Your task to perform on an android device: Show the shopping cart on walmart.com. Add "asus zenbook" to the cart on walmart.com Image 0: 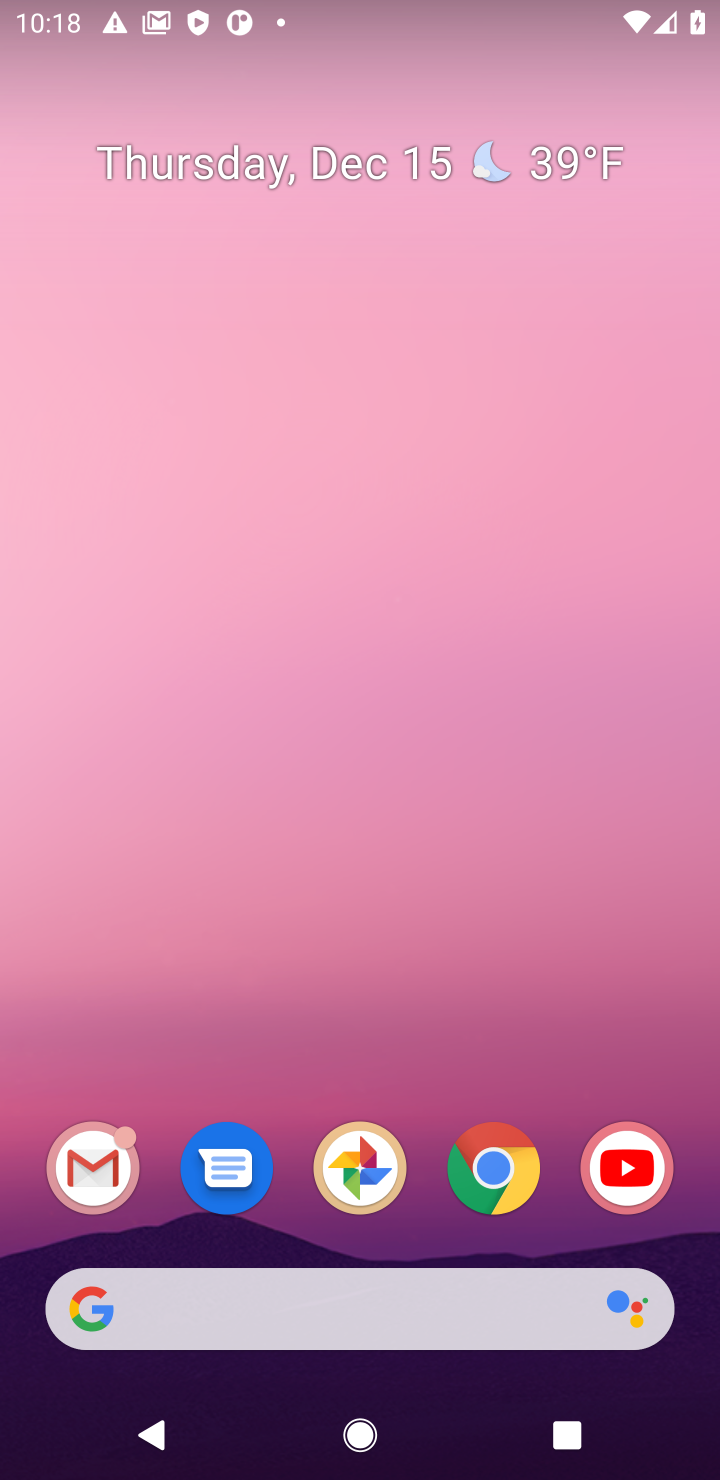
Step 0: click (484, 1161)
Your task to perform on an android device: Show the shopping cart on walmart.com. Add "asus zenbook" to the cart on walmart.com Image 1: 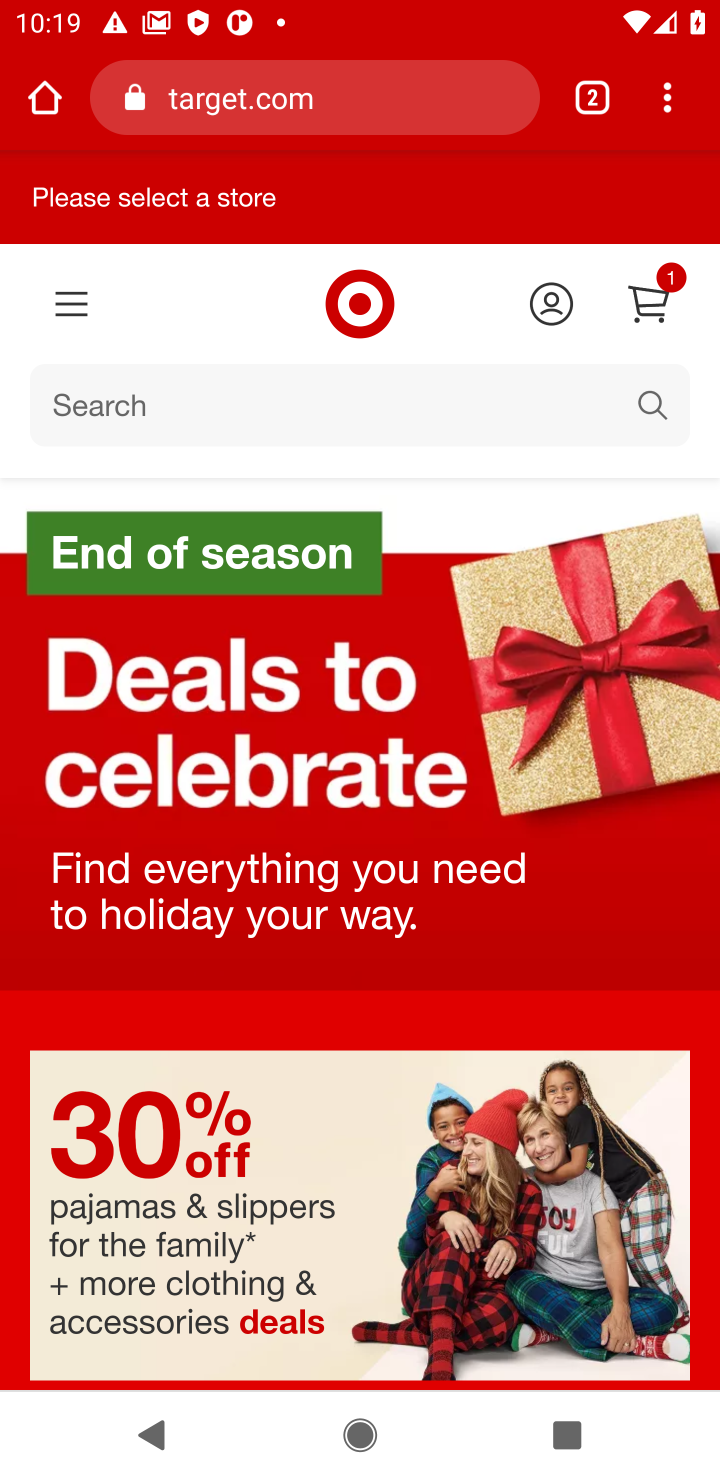
Step 1: click (251, 86)
Your task to perform on an android device: Show the shopping cart on walmart.com. Add "asus zenbook" to the cart on walmart.com Image 2: 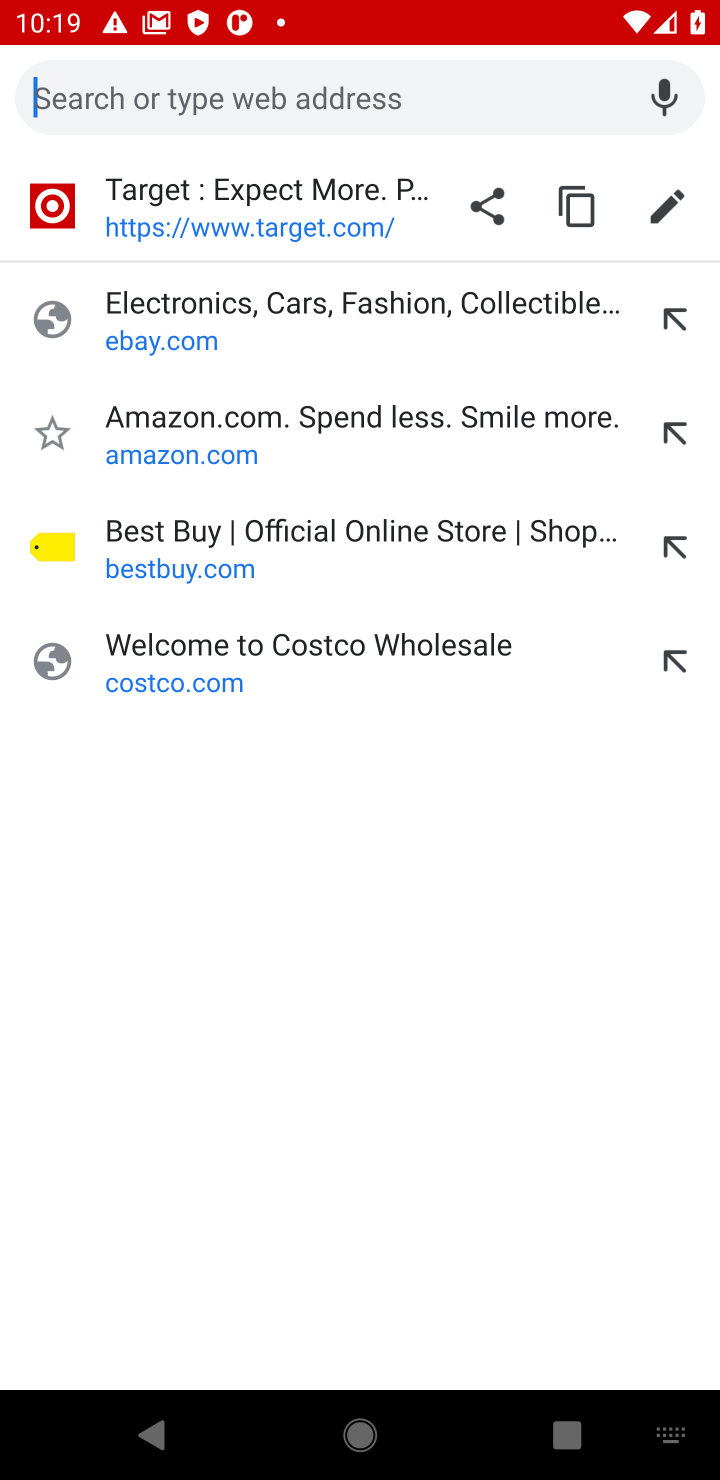
Step 2: type "walmart"
Your task to perform on an android device: Show the shopping cart on walmart.com. Add "asus zenbook" to the cart on walmart.com Image 3: 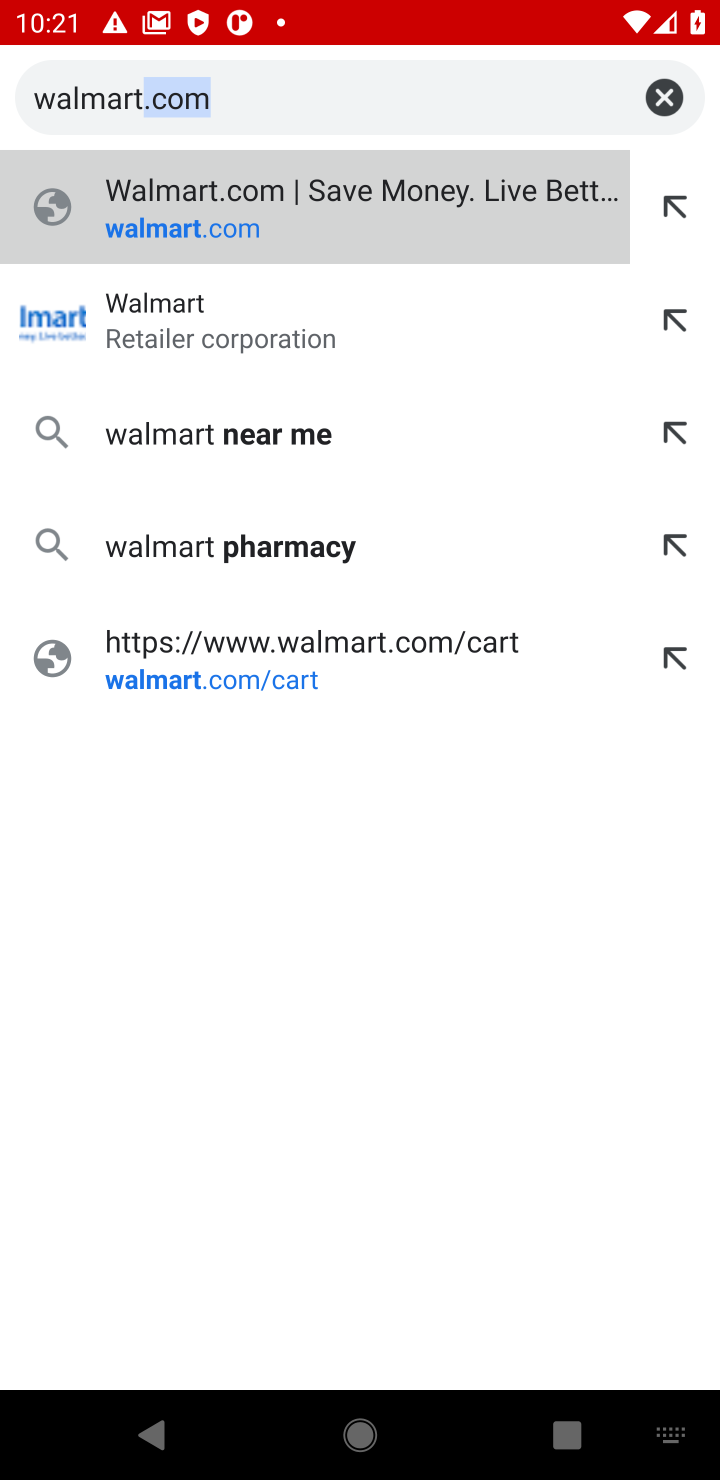
Step 3: click (409, 190)
Your task to perform on an android device: Show the shopping cart on walmart.com. Add "asus zenbook" to the cart on walmart.com Image 4: 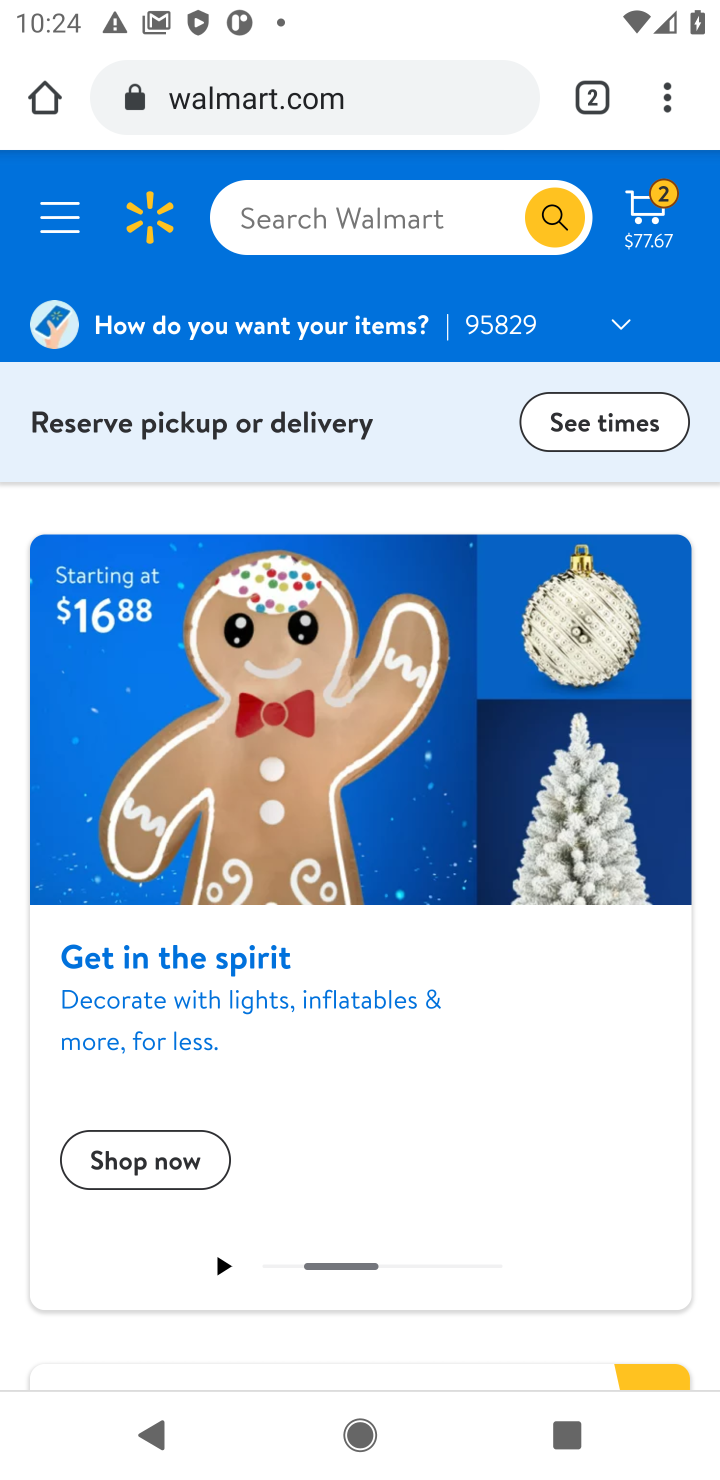
Step 4: click (658, 205)
Your task to perform on an android device: Show the shopping cart on walmart.com. Add "asus zenbook" to the cart on walmart.com Image 5: 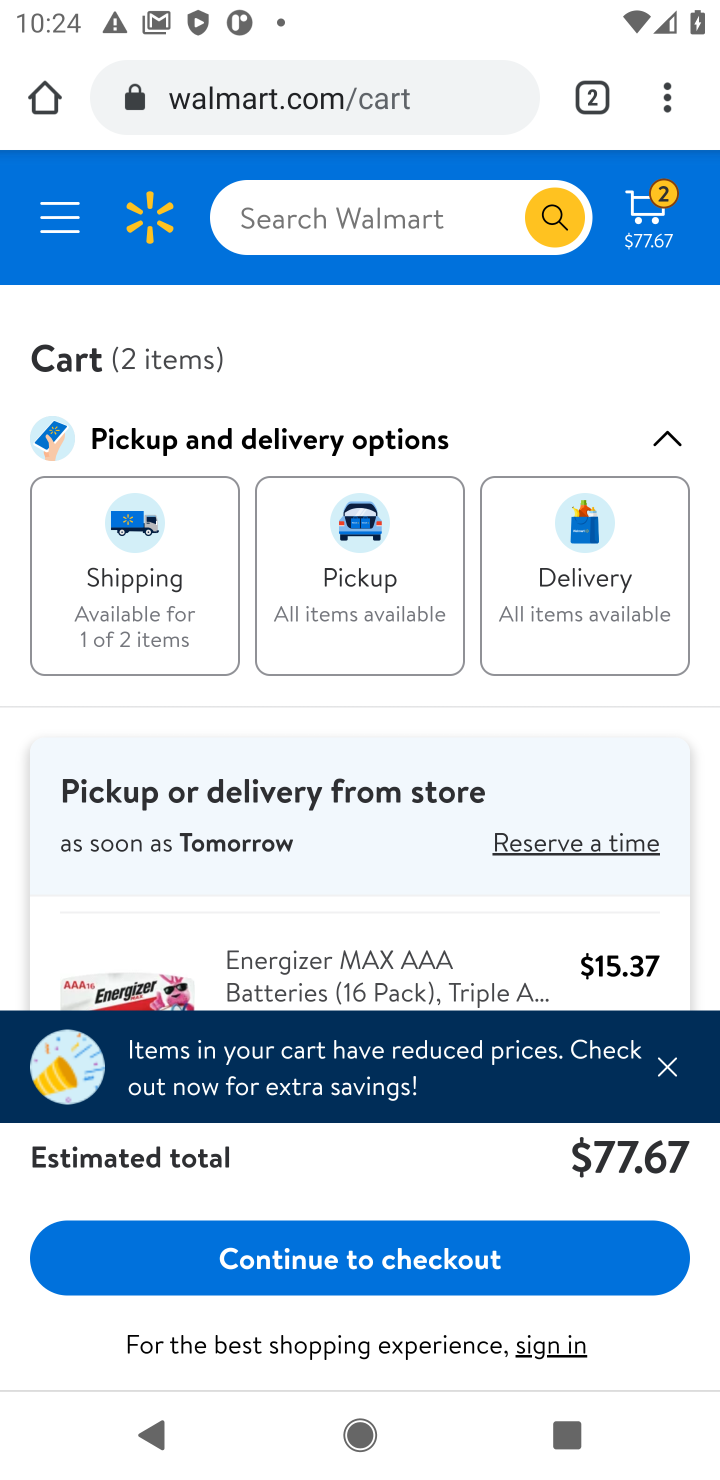
Step 5: drag from (353, 925) to (317, 117)
Your task to perform on an android device: Show the shopping cart on walmart.com. Add "asus zenbook" to the cart on walmart.com Image 6: 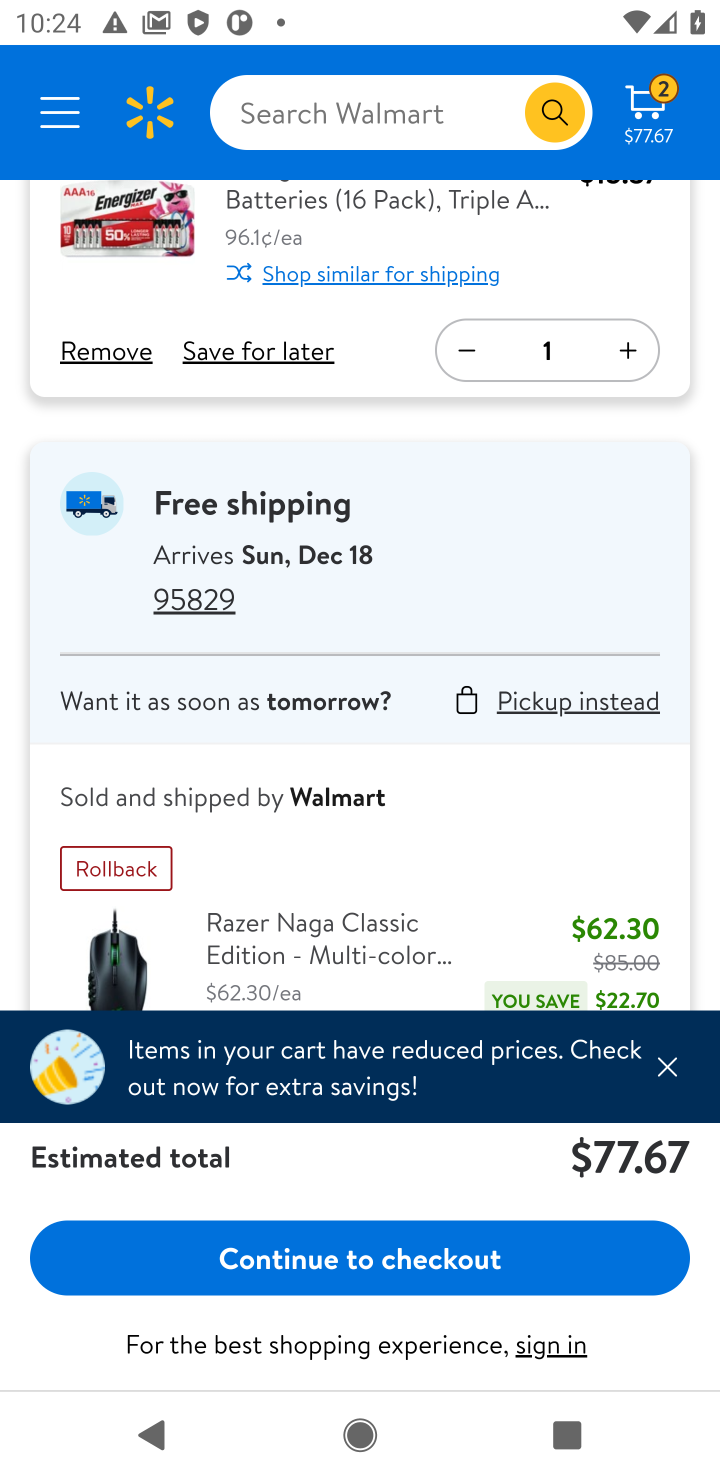
Step 6: click (115, 353)
Your task to perform on an android device: Show the shopping cart on walmart.com. Add "asus zenbook" to the cart on walmart.com Image 7: 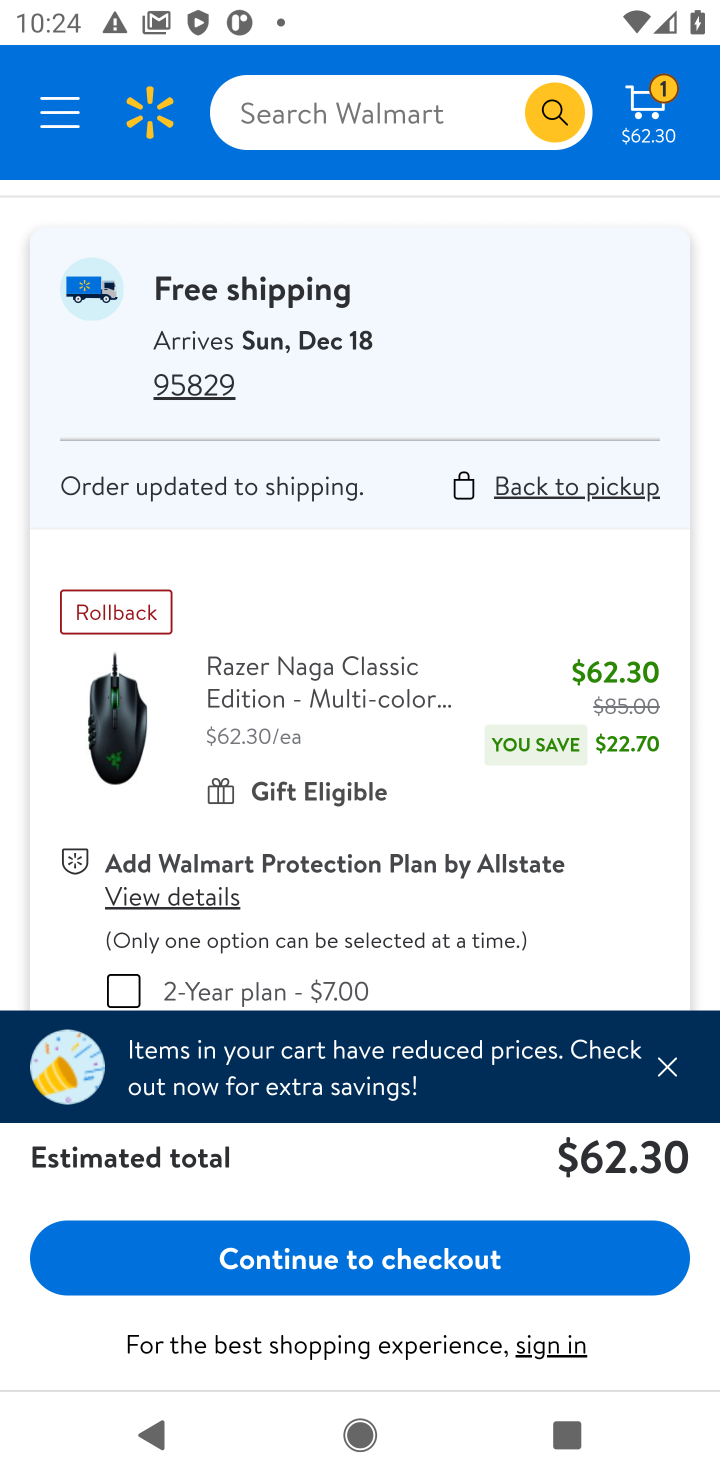
Step 7: drag from (281, 897) to (270, 422)
Your task to perform on an android device: Show the shopping cart on walmart.com. Add "asus zenbook" to the cart on walmart.com Image 8: 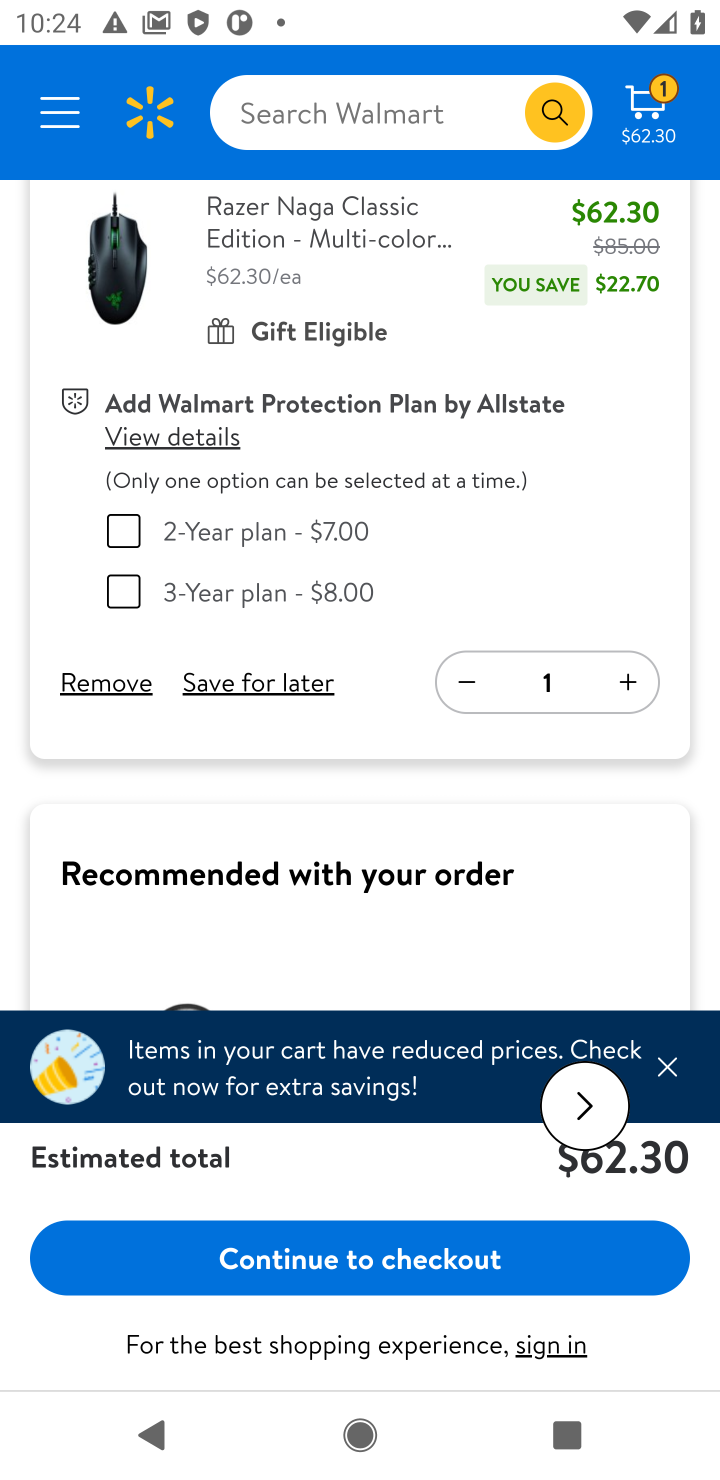
Step 8: click (87, 689)
Your task to perform on an android device: Show the shopping cart on walmart.com. Add "asus zenbook" to the cart on walmart.com Image 9: 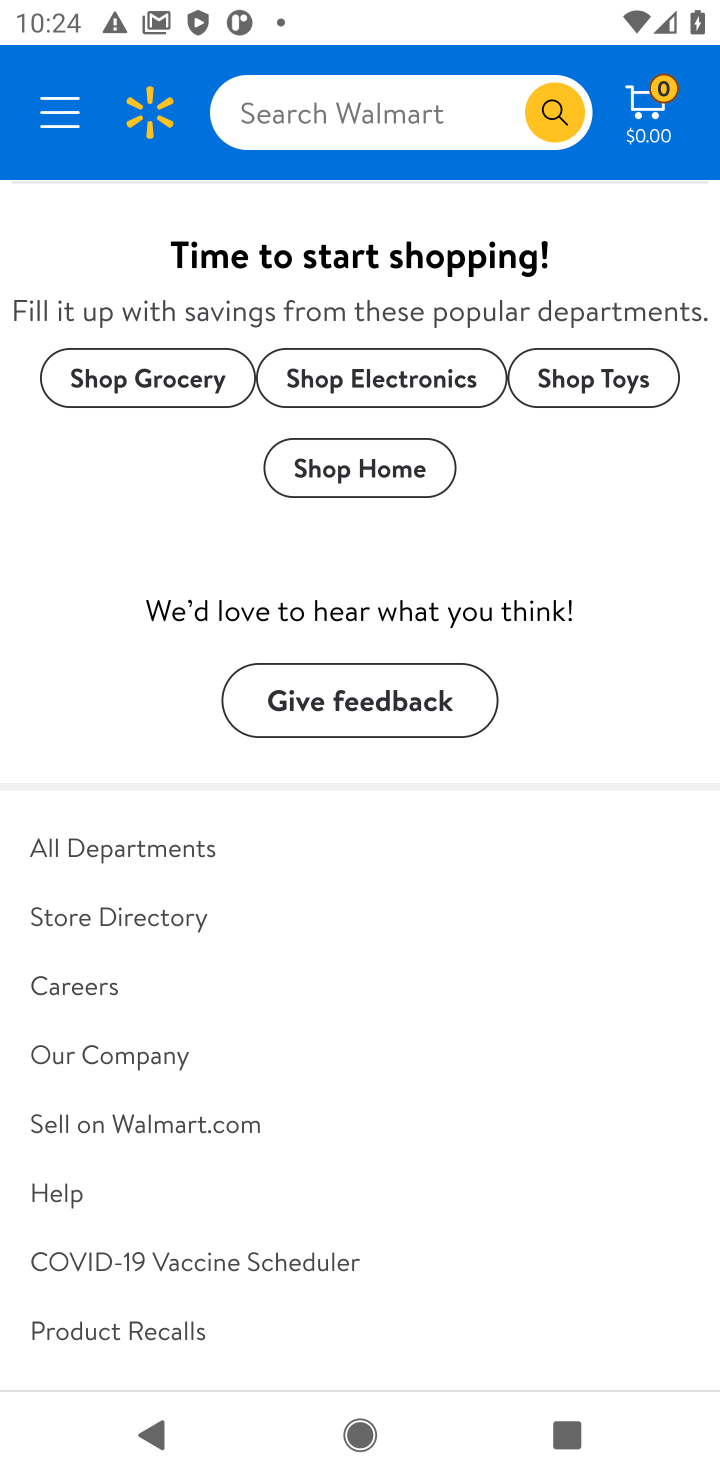
Step 9: click (312, 116)
Your task to perform on an android device: Show the shopping cart on walmart.com. Add "asus zenbook" to the cart on walmart.com Image 10: 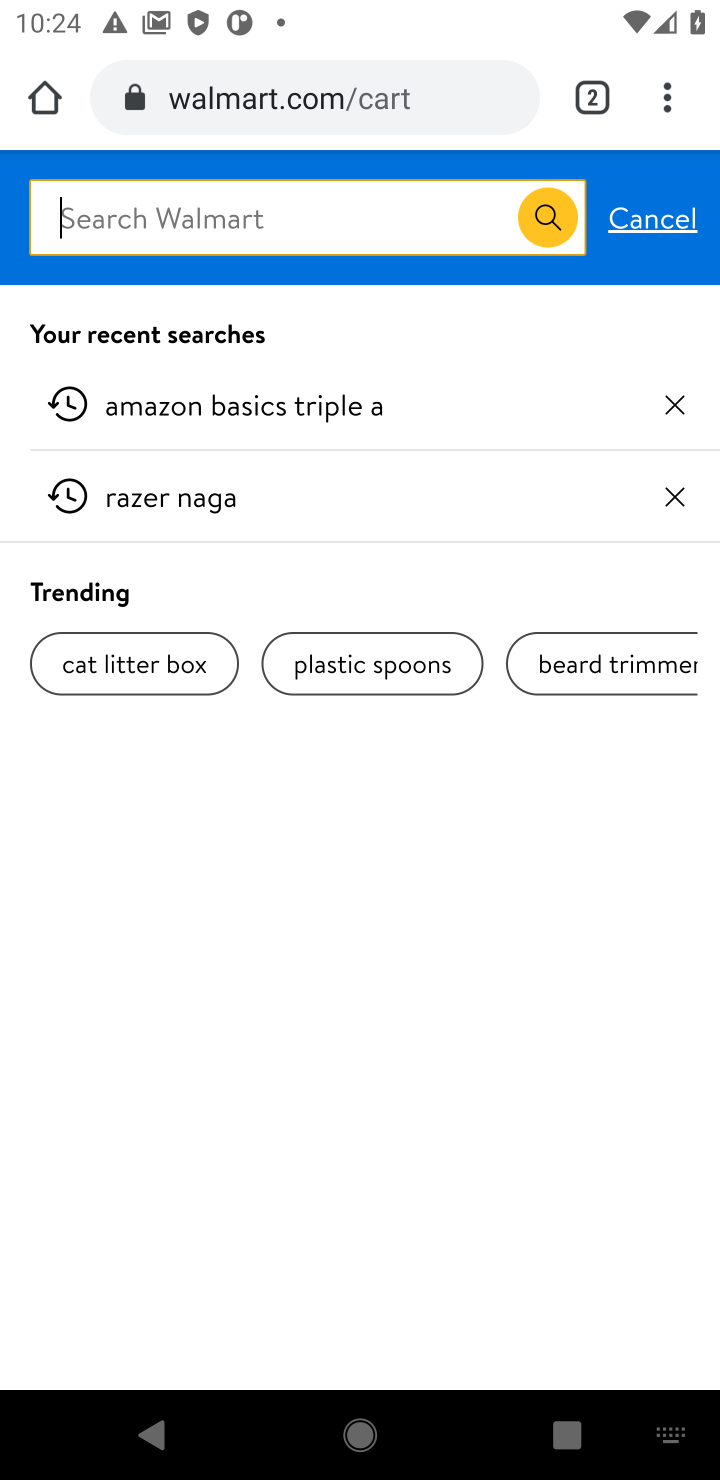
Step 10: type "asus zenbook"
Your task to perform on an android device: Show the shopping cart on walmart.com. Add "asus zenbook" to the cart on walmart.com Image 11: 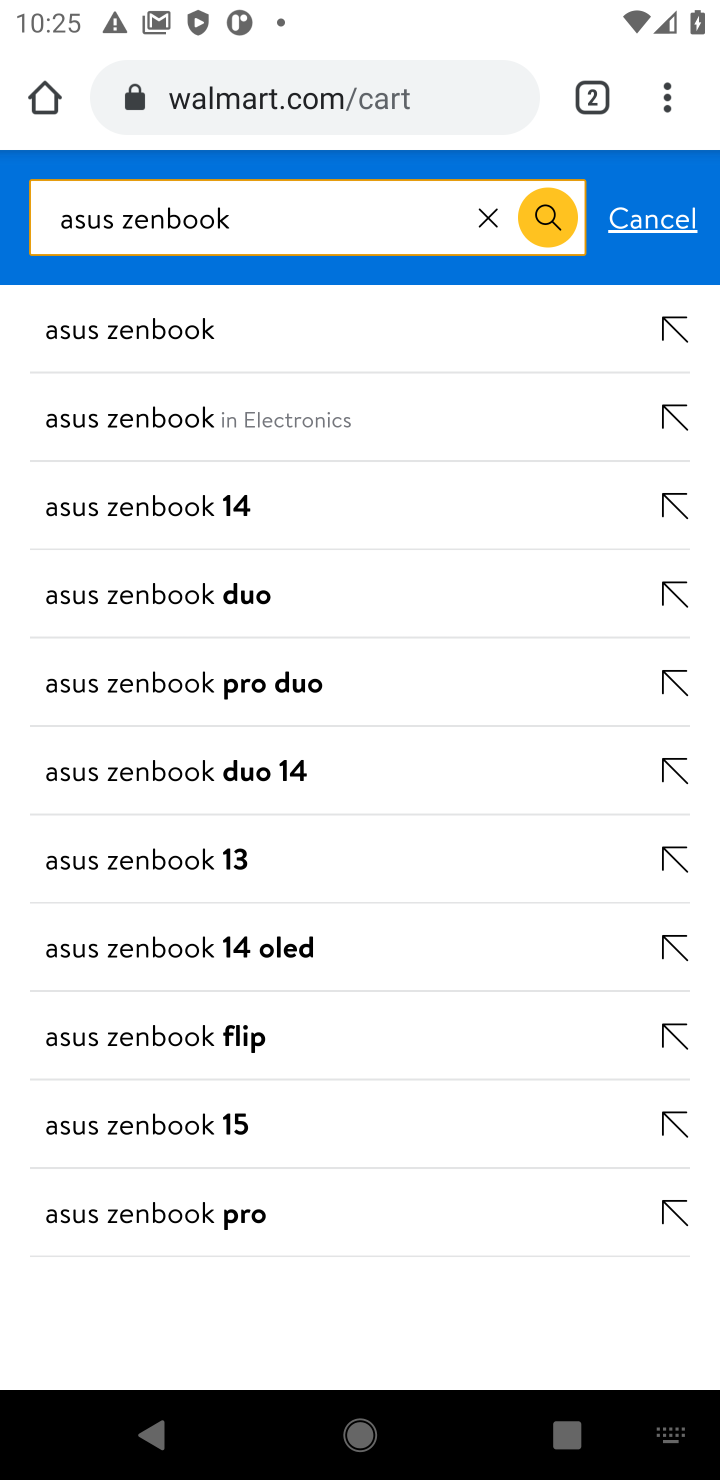
Step 11: click (101, 331)
Your task to perform on an android device: Show the shopping cart on walmart.com. Add "asus zenbook" to the cart on walmart.com Image 12: 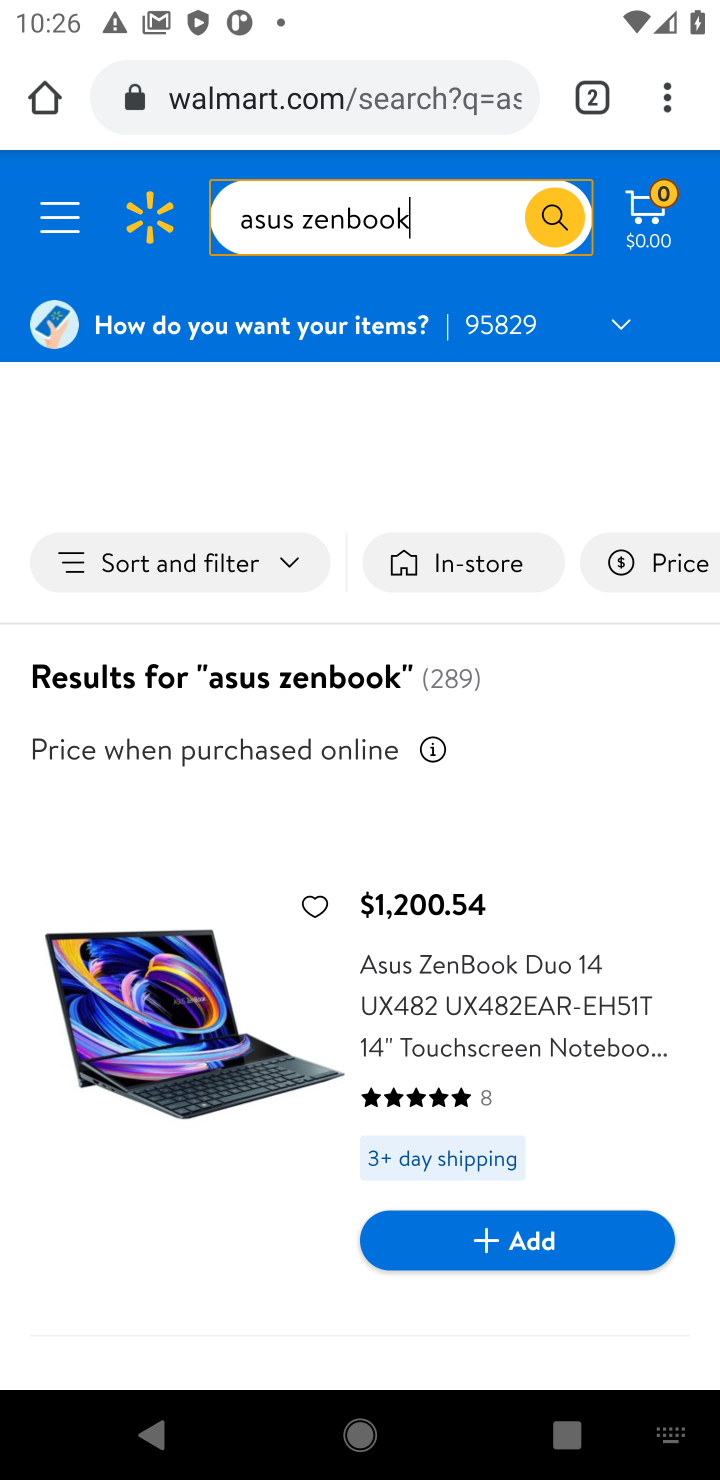
Step 12: task complete